Your task to perform on an android device: turn notification dots off Image 0: 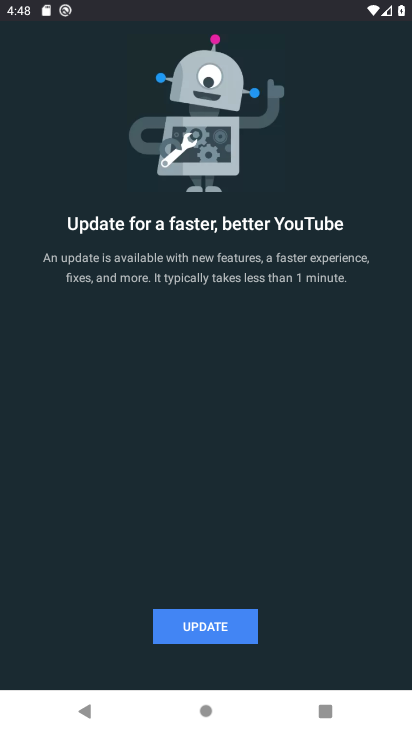
Step 0: press back button
Your task to perform on an android device: turn notification dots off Image 1: 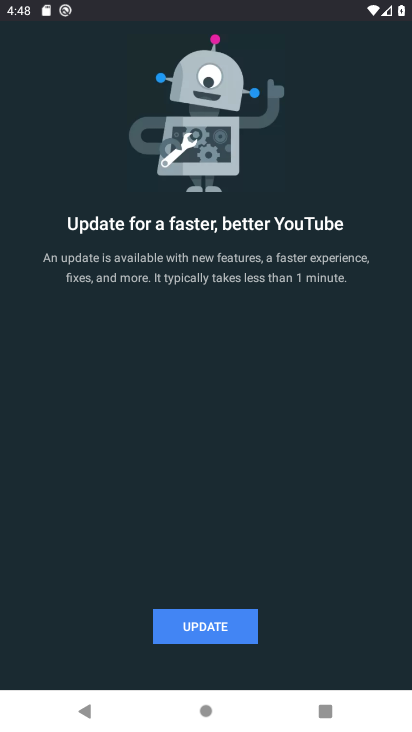
Step 1: press back button
Your task to perform on an android device: turn notification dots off Image 2: 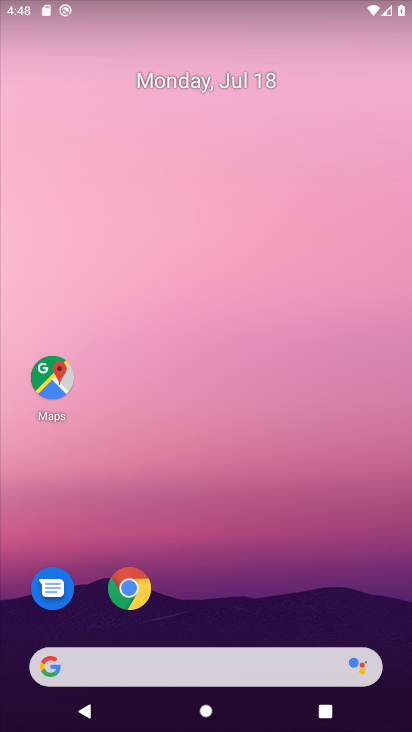
Step 2: press home button
Your task to perform on an android device: turn notification dots off Image 3: 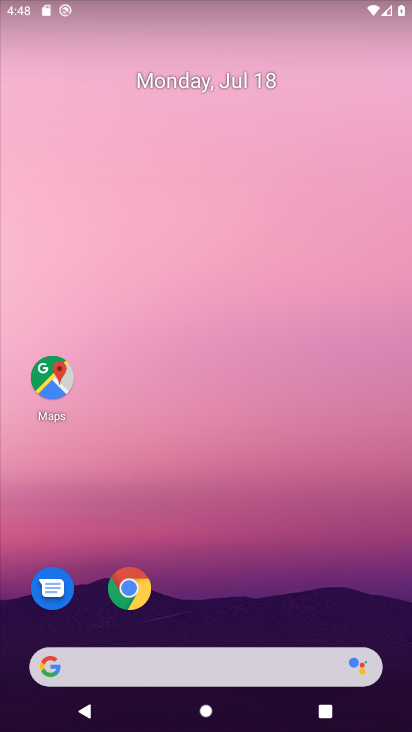
Step 3: drag from (229, 596) to (204, 166)
Your task to perform on an android device: turn notification dots off Image 4: 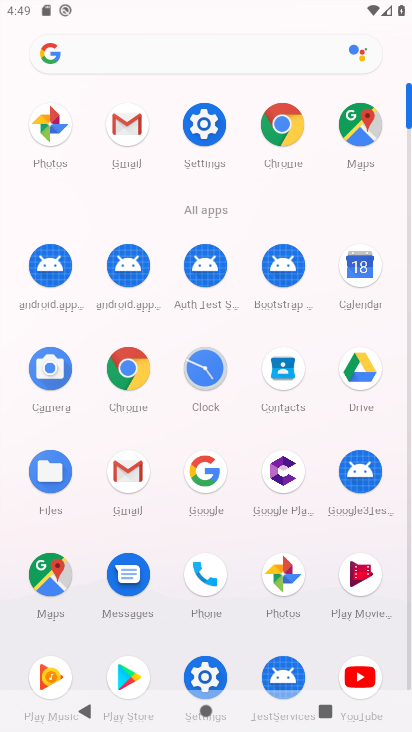
Step 4: click (206, 116)
Your task to perform on an android device: turn notification dots off Image 5: 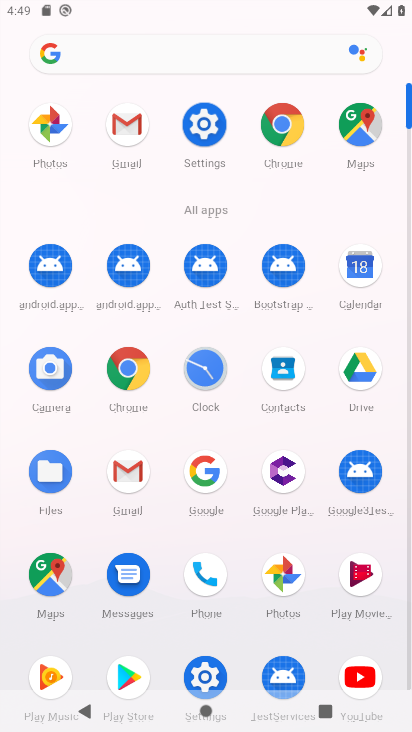
Step 5: click (205, 116)
Your task to perform on an android device: turn notification dots off Image 6: 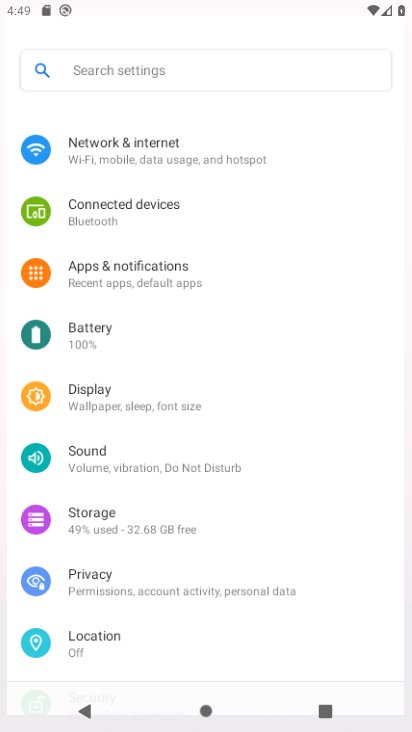
Step 6: click (205, 116)
Your task to perform on an android device: turn notification dots off Image 7: 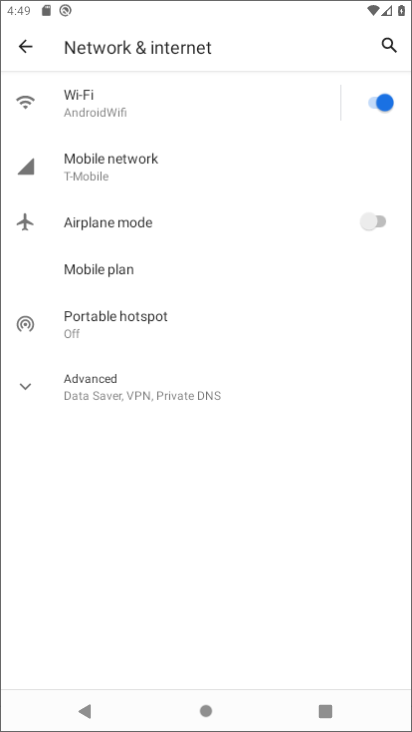
Step 7: click (98, 244)
Your task to perform on an android device: turn notification dots off Image 8: 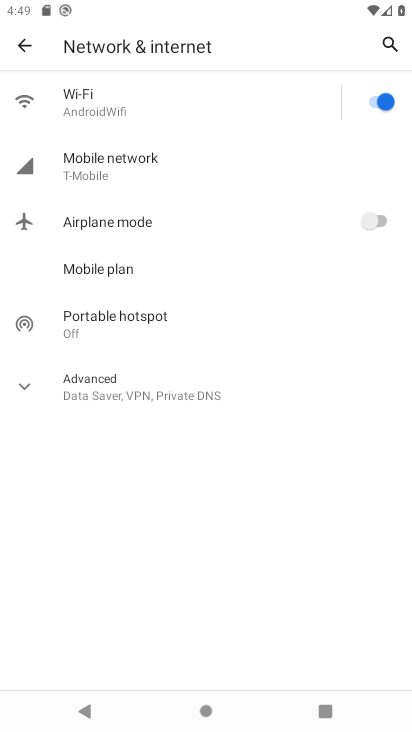
Step 8: click (105, 237)
Your task to perform on an android device: turn notification dots off Image 9: 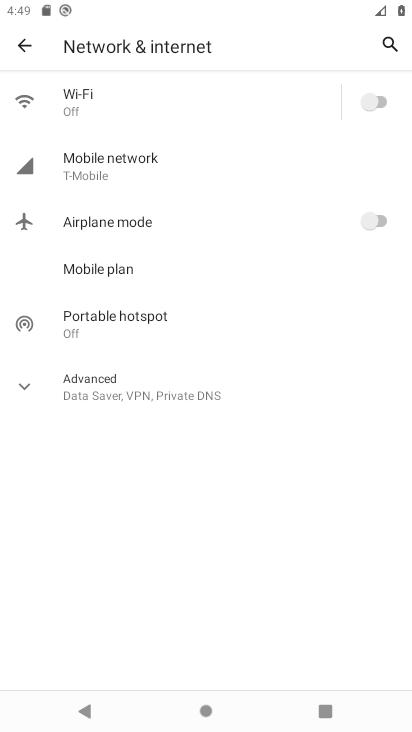
Step 9: click (22, 41)
Your task to perform on an android device: turn notification dots off Image 10: 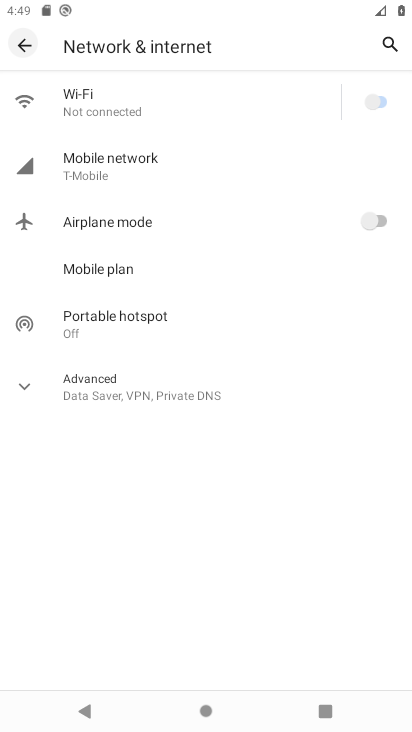
Step 10: click (22, 41)
Your task to perform on an android device: turn notification dots off Image 11: 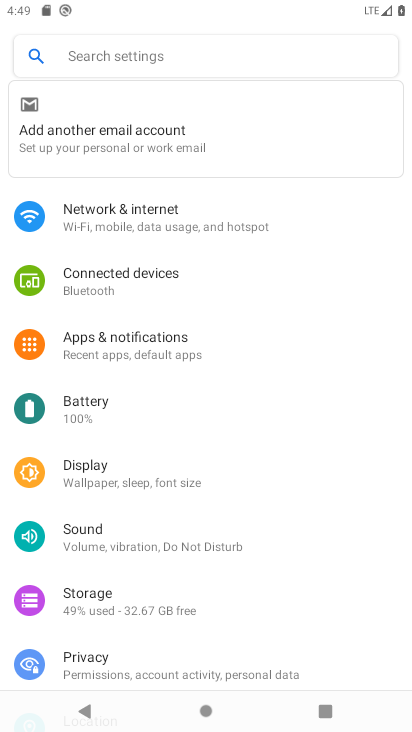
Step 11: click (126, 347)
Your task to perform on an android device: turn notification dots off Image 12: 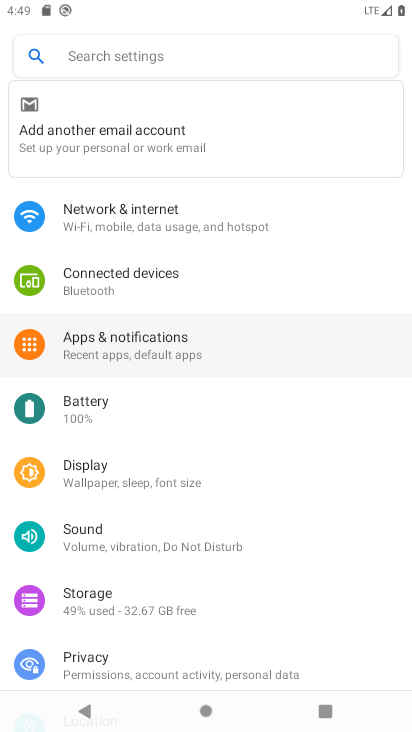
Step 12: click (126, 347)
Your task to perform on an android device: turn notification dots off Image 13: 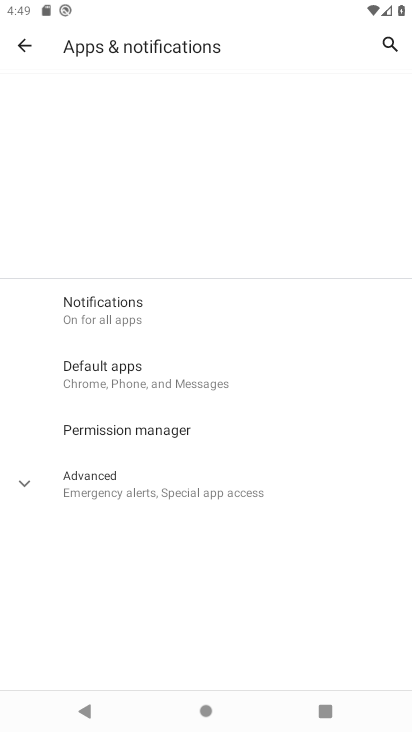
Step 13: click (132, 349)
Your task to perform on an android device: turn notification dots off Image 14: 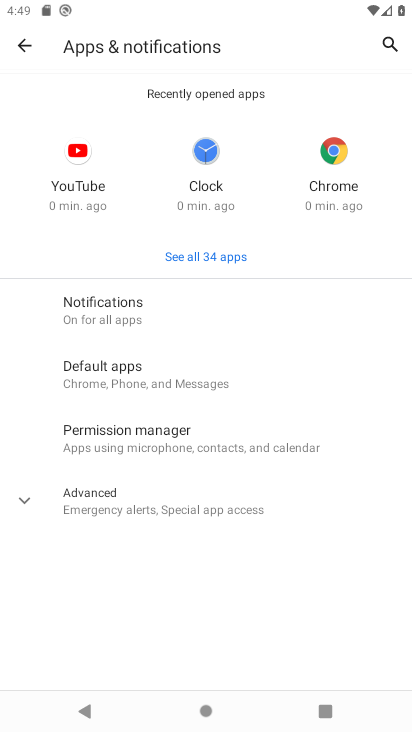
Step 14: click (106, 309)
Your task to perform on an android device: turn notification dots off Image 15: 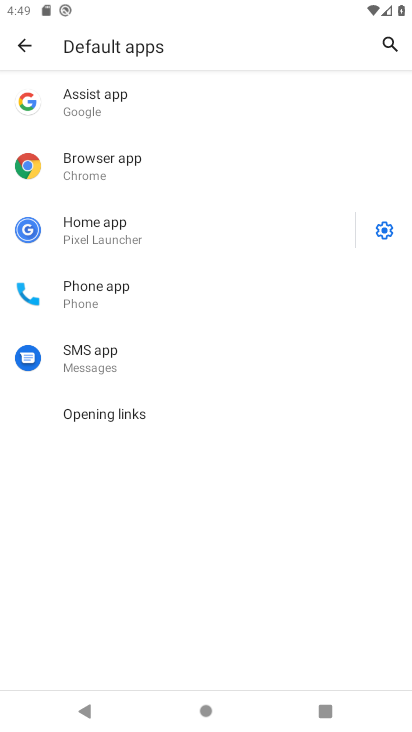
Step 15: click (24, 44)
Your task to perform on an android device: turn notification dots off Image 16: 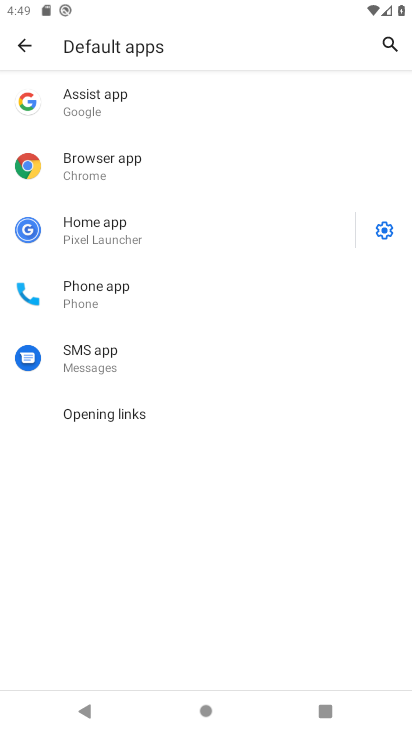
Step 16: click (24, 43)
Your task to perform on an android device: turn notification dots off Image 17: 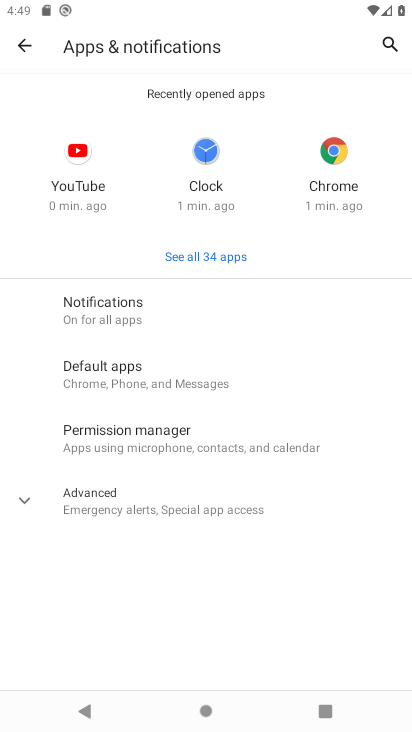
Step 17: click (119, 312)
Your task to perform on an android device: turn notification dots off Image 18: 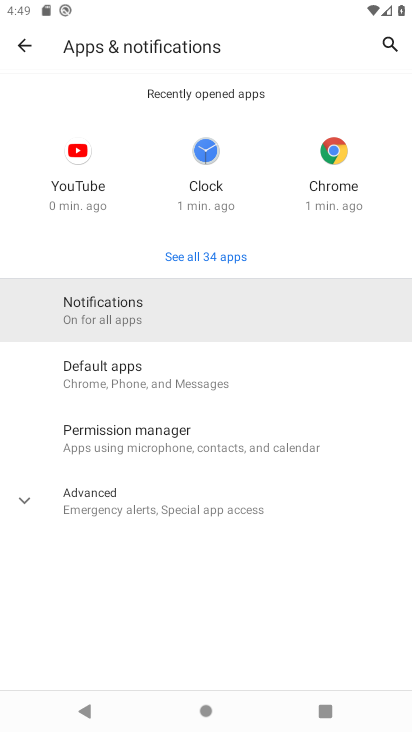
Step 18: click (119, 312)
Your task to perform on an android device: turn notification dots off Image 19: 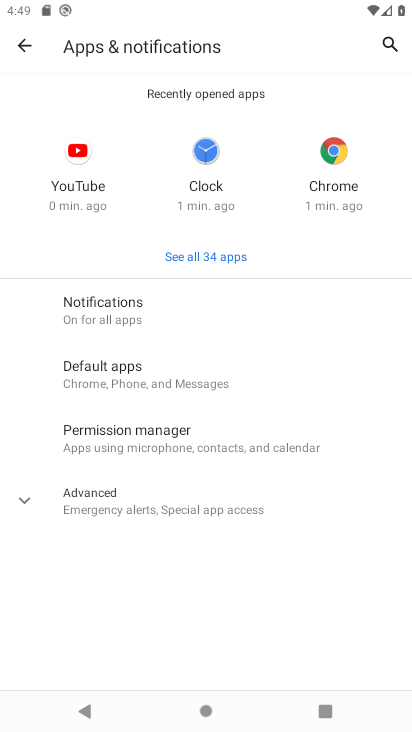
Step 19: click (119, 312)
Your task to perform on an android device: turn notification dots off Image 20: 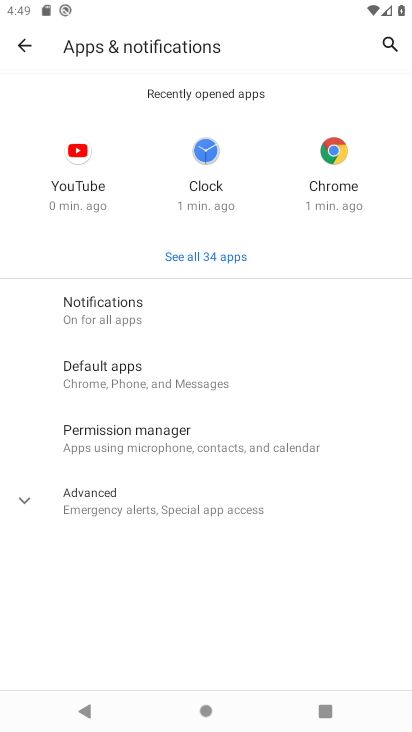
Step 20: click (119, 312)
Your task to perform on an android device: turn notification dots off Image 21: 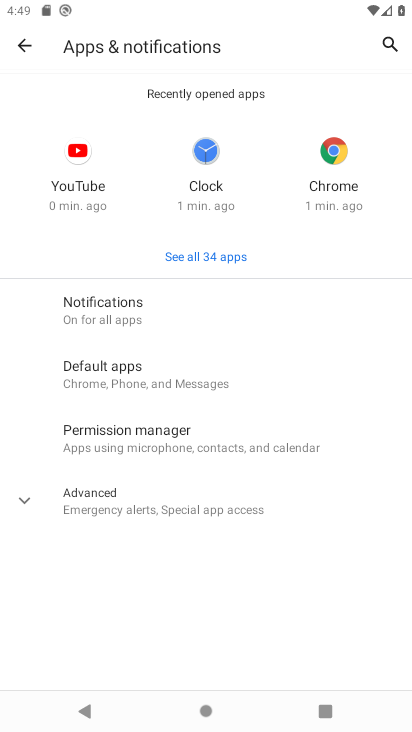
Step 21: click (119, 311)
Your task to perform on an android device: turn notification dots off Image 22: 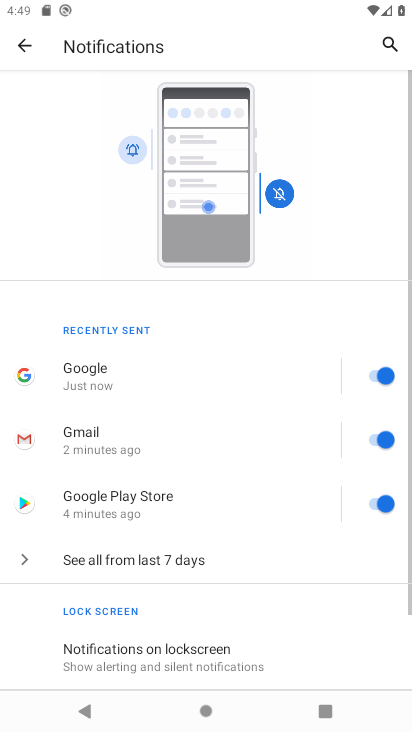
Step 22: drag from (204, 569) to (222, 288)
Your task to perform on an android device: turn notification dots off Image 23: 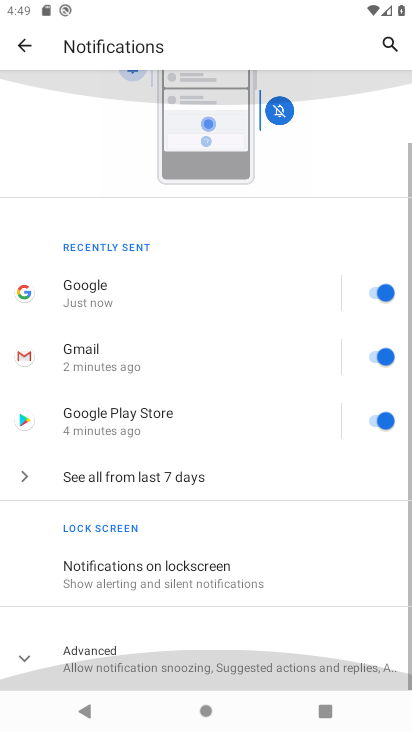
Step 23: drag from (263, 517) to (260, 269)
Your task to perform on an android device: turn notification dots off Image 24: 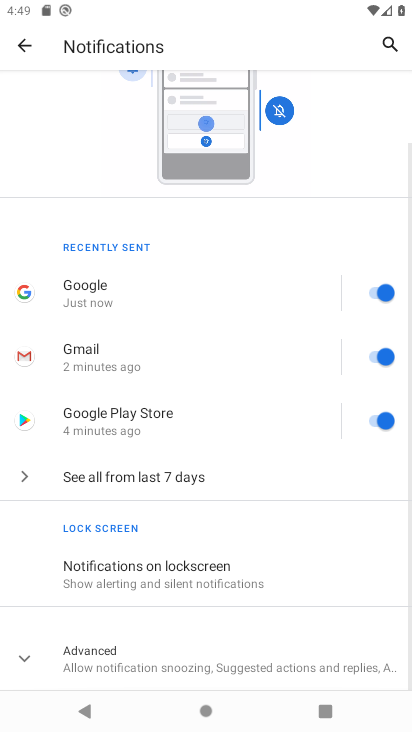
Step 24: click (95, 678)
Your task to perform on an android device: turn notification dots off Image 25: 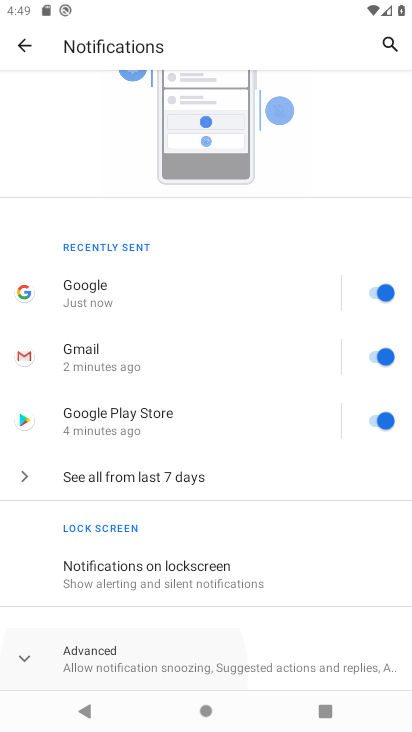
Step 25: click (86, 662)
Your task to perform on an android device: turn notification dots off Image 26: 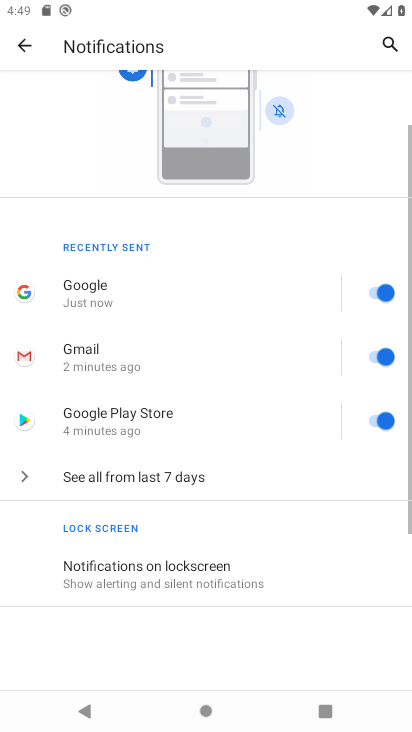
Step 26: click (86, 653)
Your task to perform on an android device: turn notification dots off Image 27: 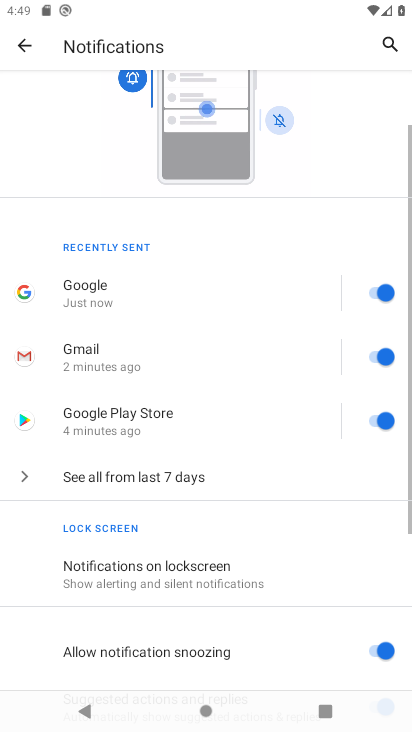
Step 27: drag from (293, 242) to (262, 291)
Your task to perform on an android device: turn notification dots off Image 28: 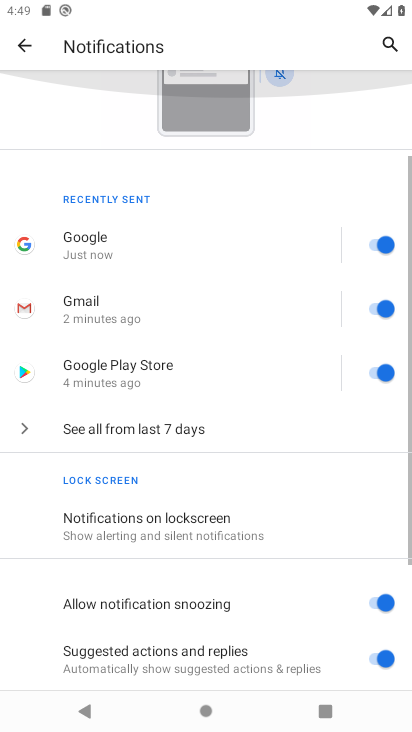
Step 28: drag from (257, 606) to (257, 276)
Your task to perform on an android device: turn notification dots off Image 29: 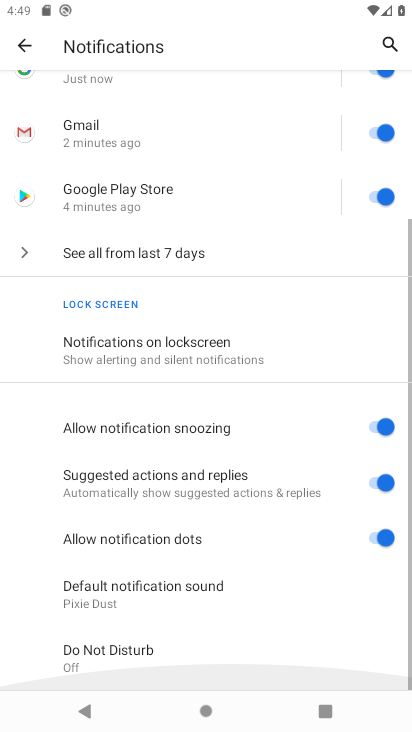
Step 29: drag from (235, 684) to (230, 300)
Your task to perform on an android device: turn notification dots off Image 30: 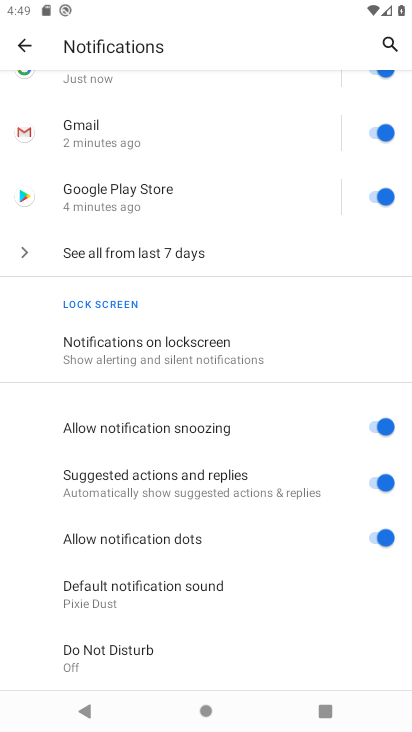
Step 30: click (382, 538)
Your task to perform on an android device: turn notification dots off Image 31: 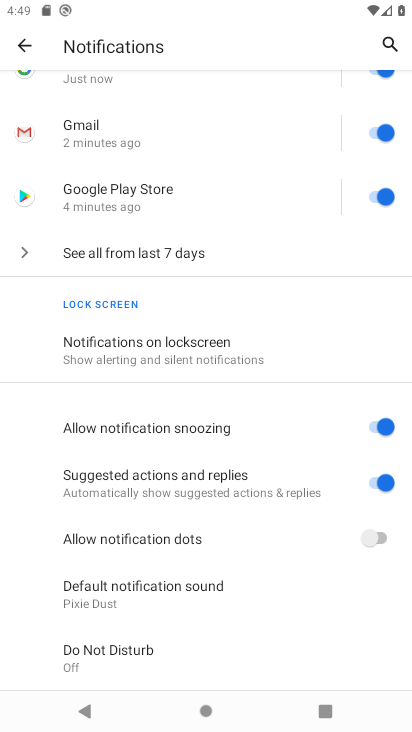
Step 31: task complete